Your task to perform on an android device: search for starred emails in the gmail app Image 0: 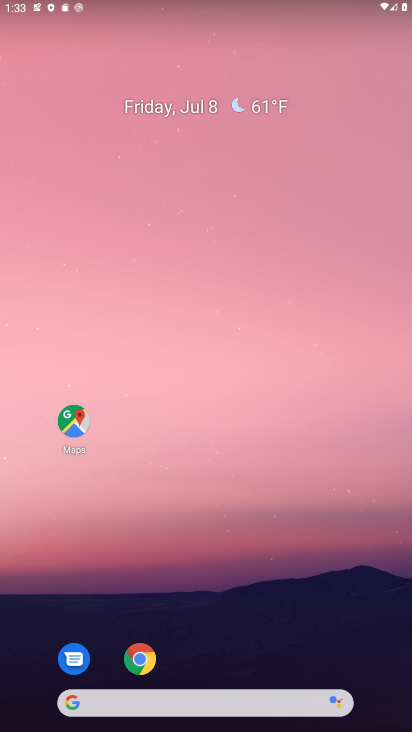
Step 0: drag from (196, 692) to (164, 127)
Your task to perform on an android device: search for starred emails in the gmail app Image 1: 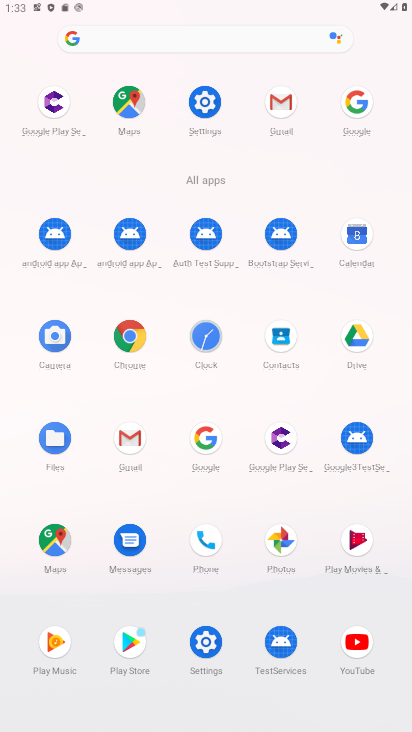
Step 1: click (132, 439)
Your task to perform on an android device: search for starred emails in the gmail app Image 2: 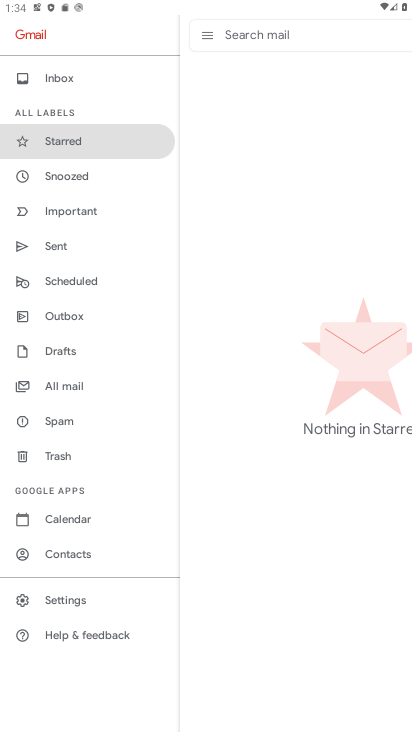
Step 2: click (78, 147)
Your task to perform on an android device: search for starred emails in the gmail app Image 3: 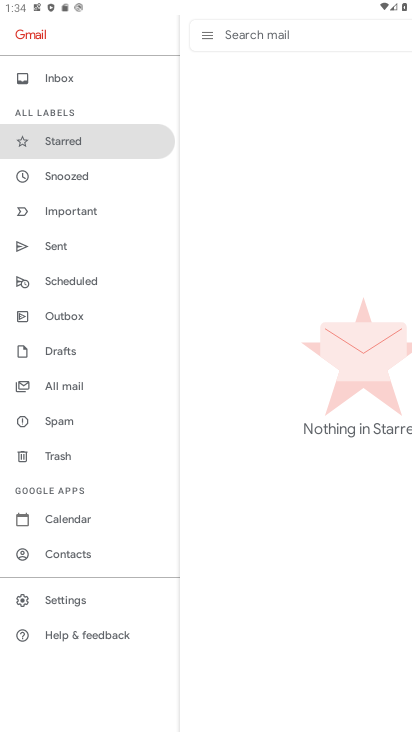
Step 3: task complete